Your task to perform on an android device: open app "HBO Max: Stream TV & Movies" Image 0: 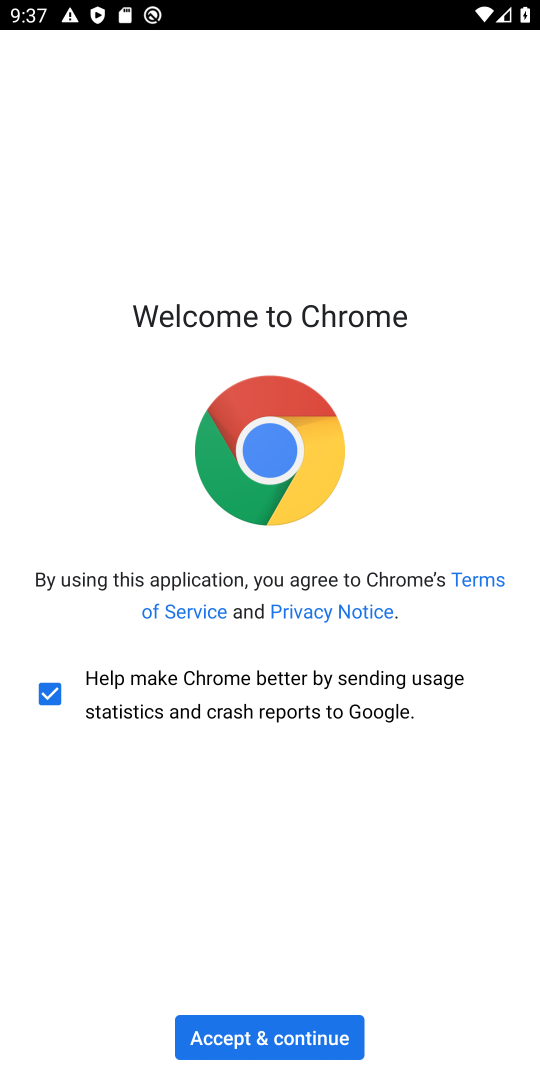
Step 0: press home button
Your task to perform on an android device: open app "HBO Max: Stream TV & Movies" Image 1: 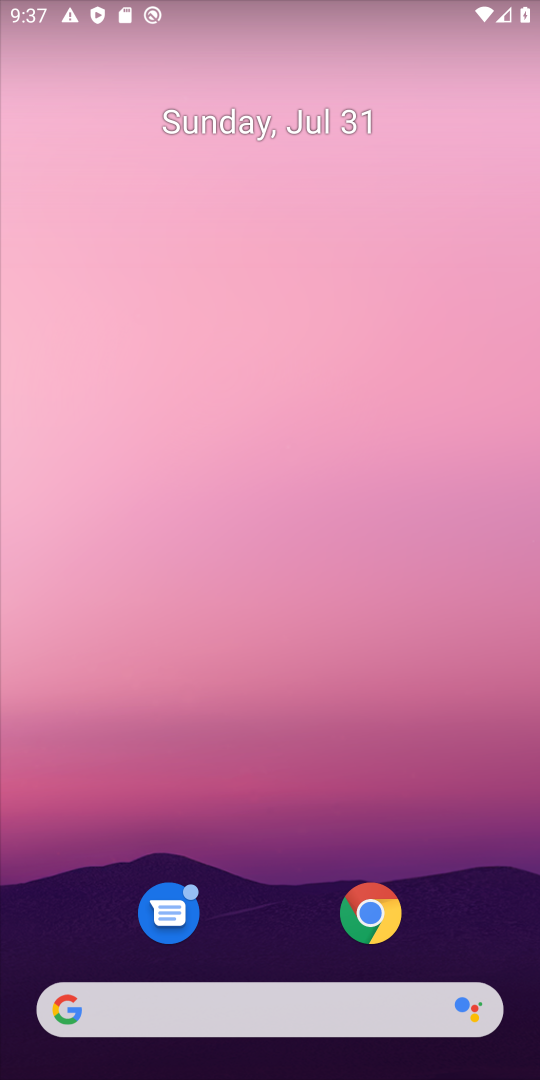
Step 1: drag from (260, 924) to (325, 237)
Your task to perform on an android device: open app "HBO Max: Stream TV & Movies" Image 2: 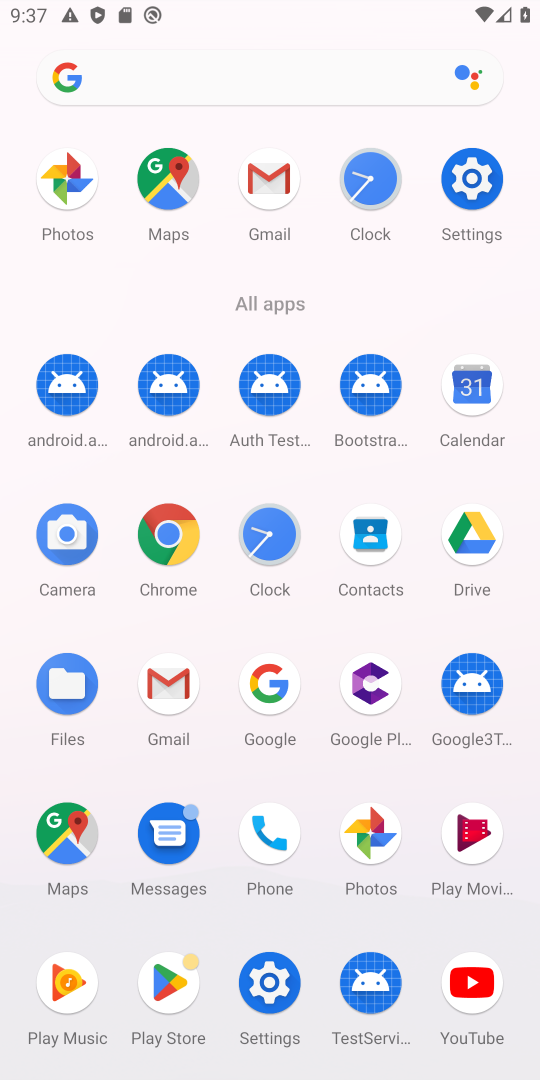
Step 2: click (178, 980)
Your task to perform on an android device: open app "HBO Max: Stream TV & Movies" Image 3: 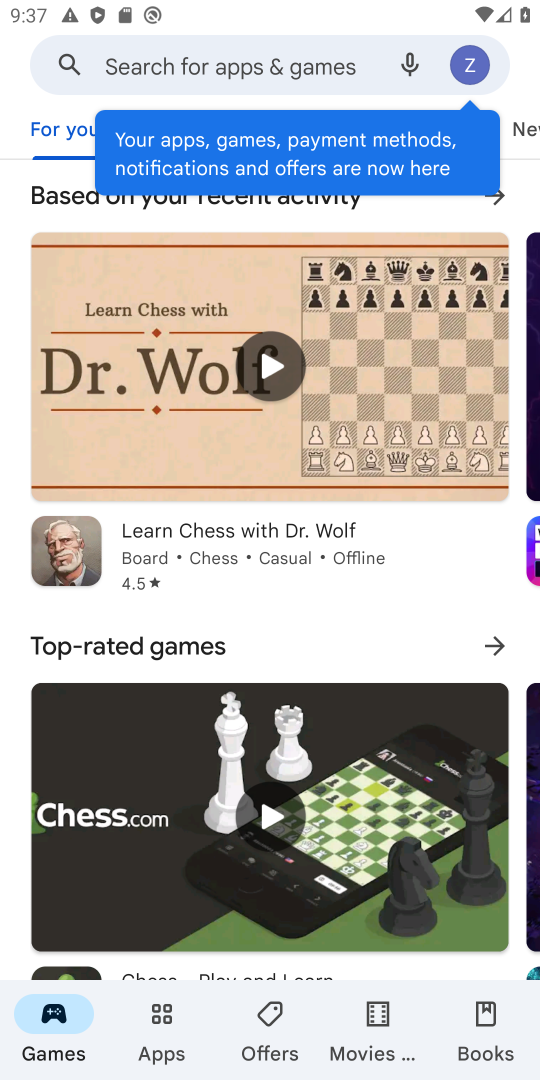
Step 3: click (369, 69)
Your task to perform on an android device: open app "HBO Max: Stream TV & Movies" Image 4: 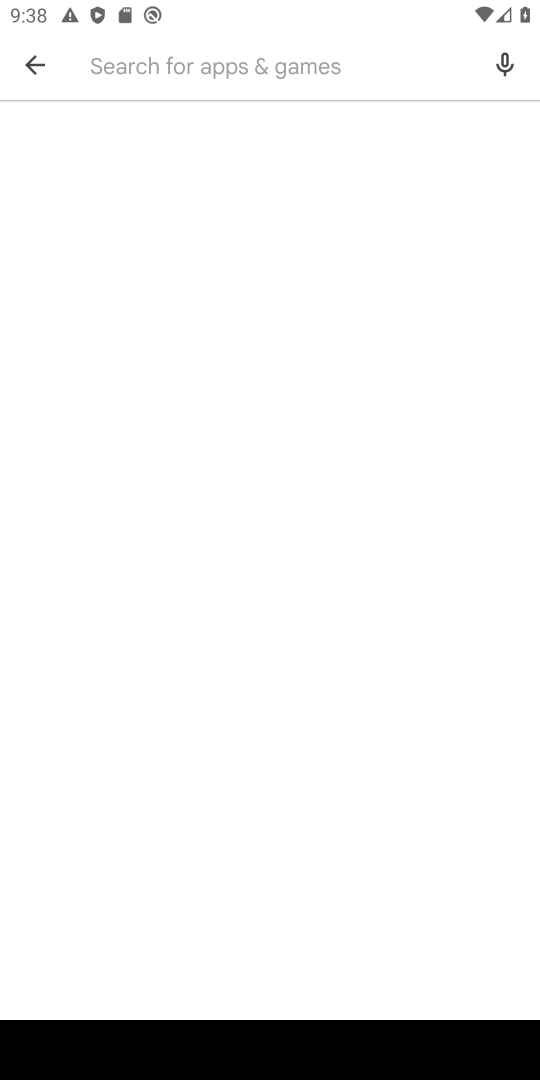
Step 4: type "hbo max: stream tv & movies"
Your task to perform on an android device: open app "HBO Max: Stream TV & Movies" Image 5: 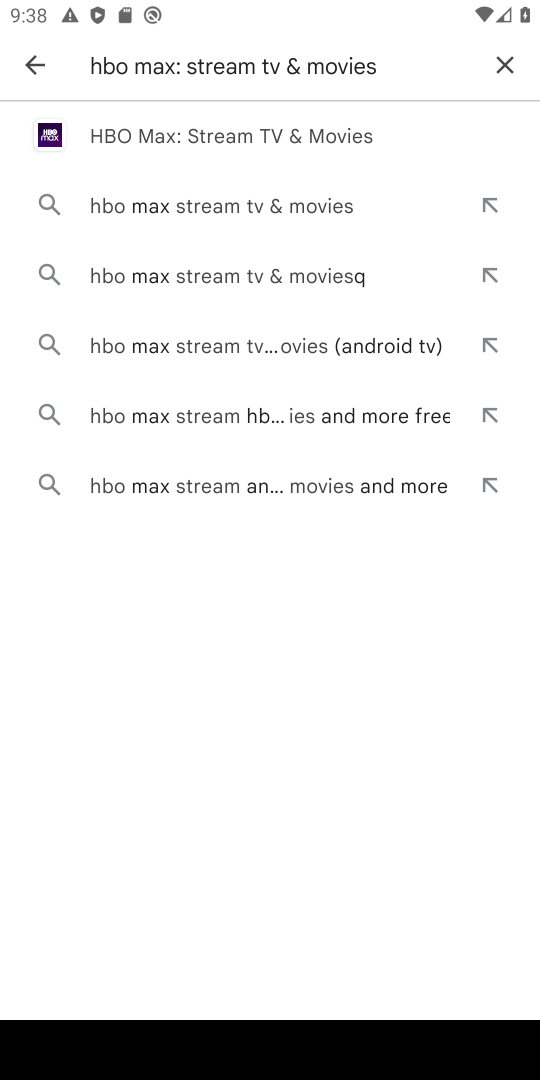
Step 5: click (207, 124)
Your task to perform on an android device: open app "HBO Max: Stream TV & Movies" Image 6: 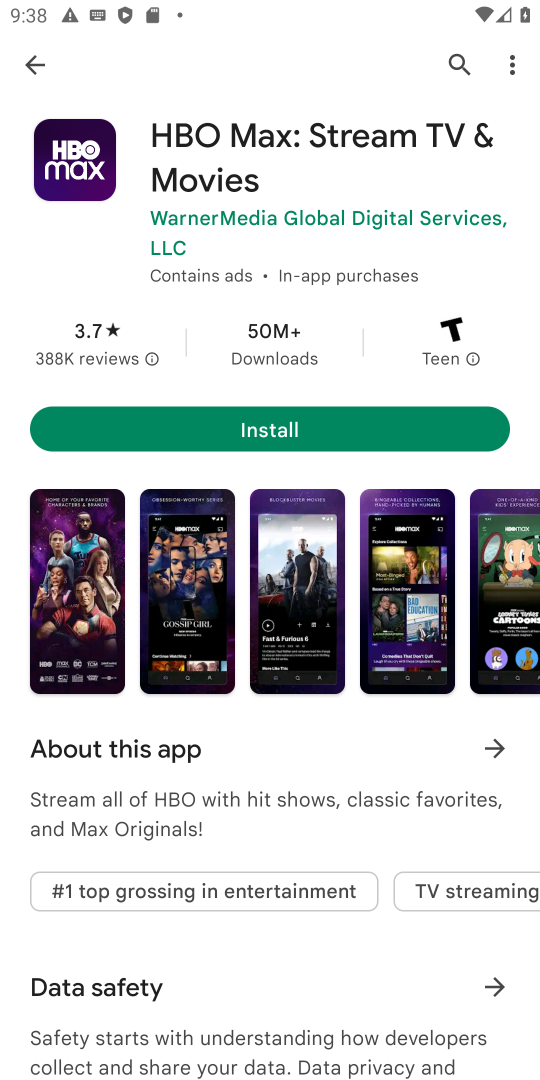
Step 6: task complete